Your task to perform on an android device: Go to privacy settings Image 0: 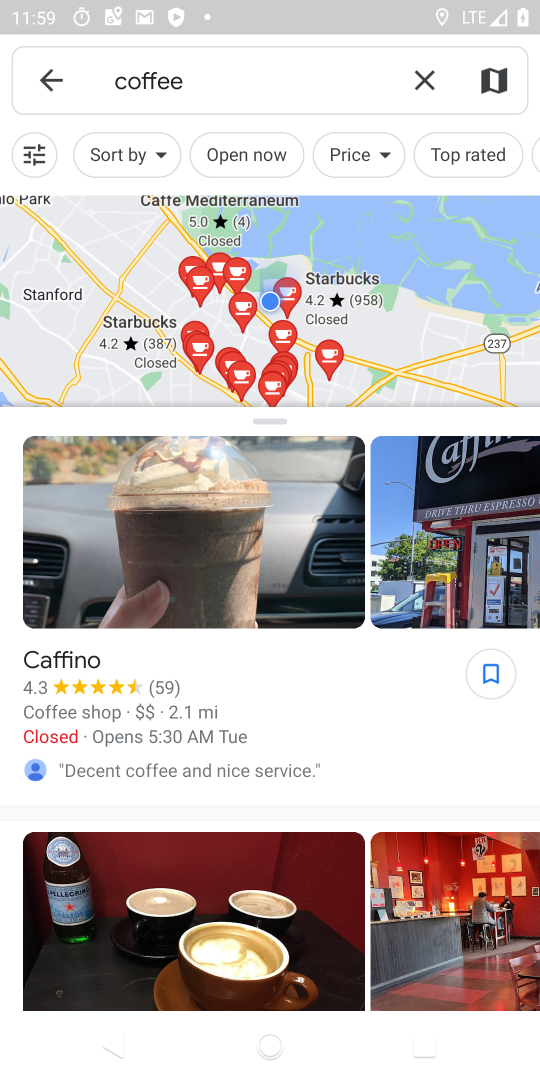
Step 0: press home button
Your task to perform on an android device: Go to privacy settings Image 1: 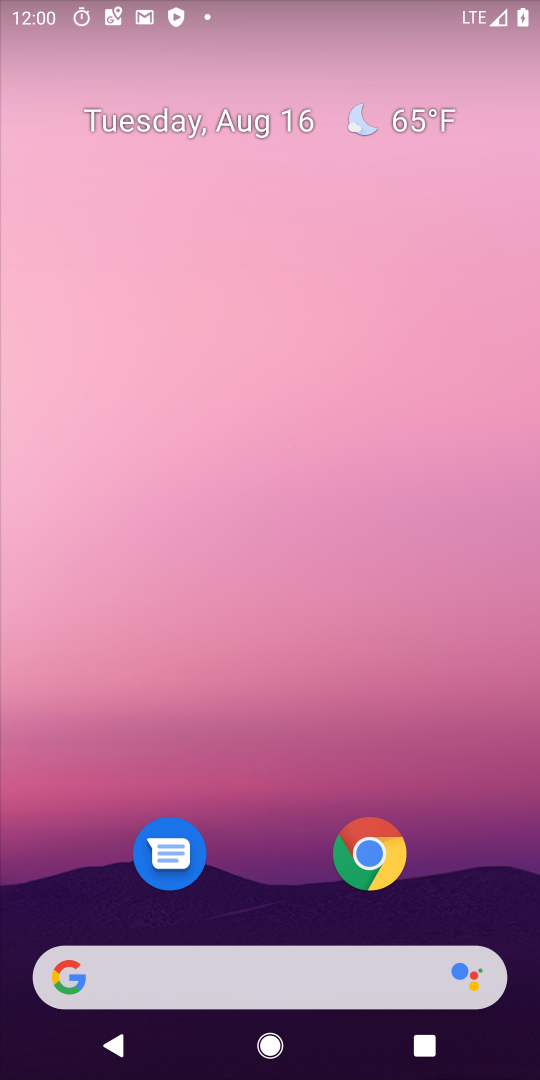
Step 1: drag from (204, 730) to (204, 322)
Your task to perform on an android device: Go to privacy settings Image 2: 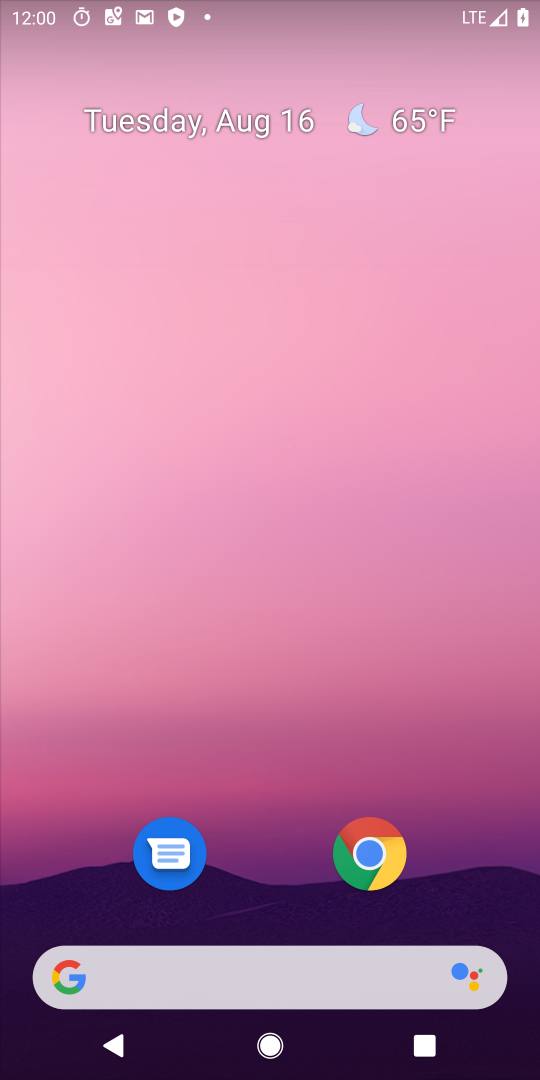
Step 2: drag from (275, 930) to (271, 168)
Your task to perform on an android device: Go to privacy settings Image 3: 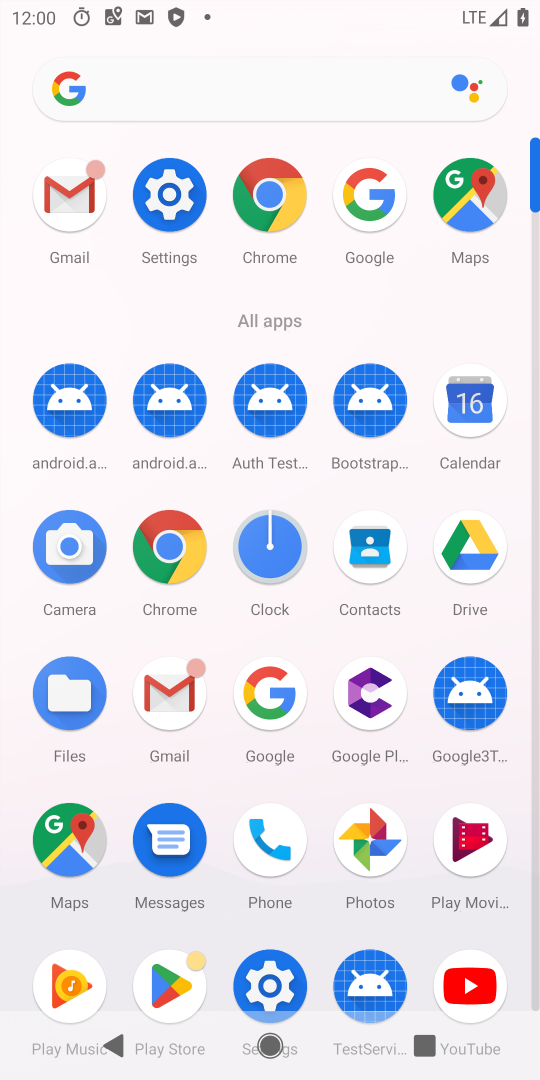
Step 3: click (176, 185)
Your task to perform on an android device: Go to privacy settings Image 4: 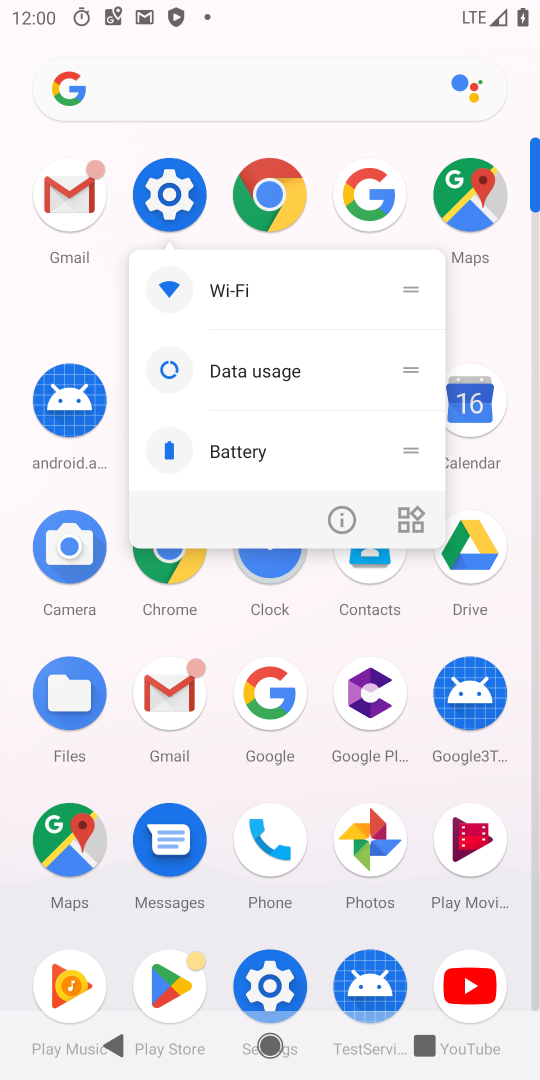
Step 4: click (158, 189)
Your task to perform on an android device: Go to privacy settings Image 5: 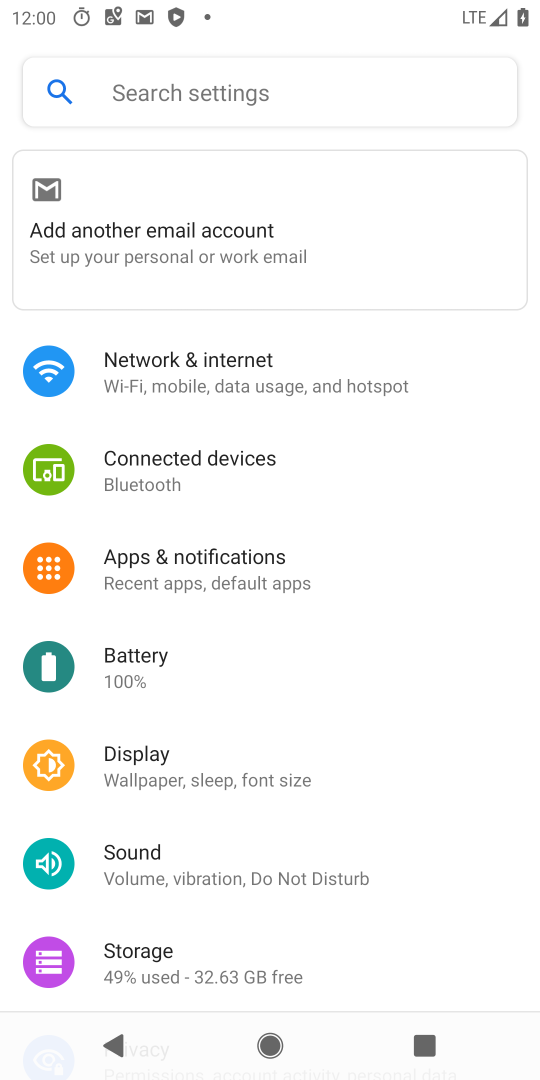
Step 5: drag from (166, 938) to (158, 412)
Your task to perform on an android device: Go to privacy settings Image 6: 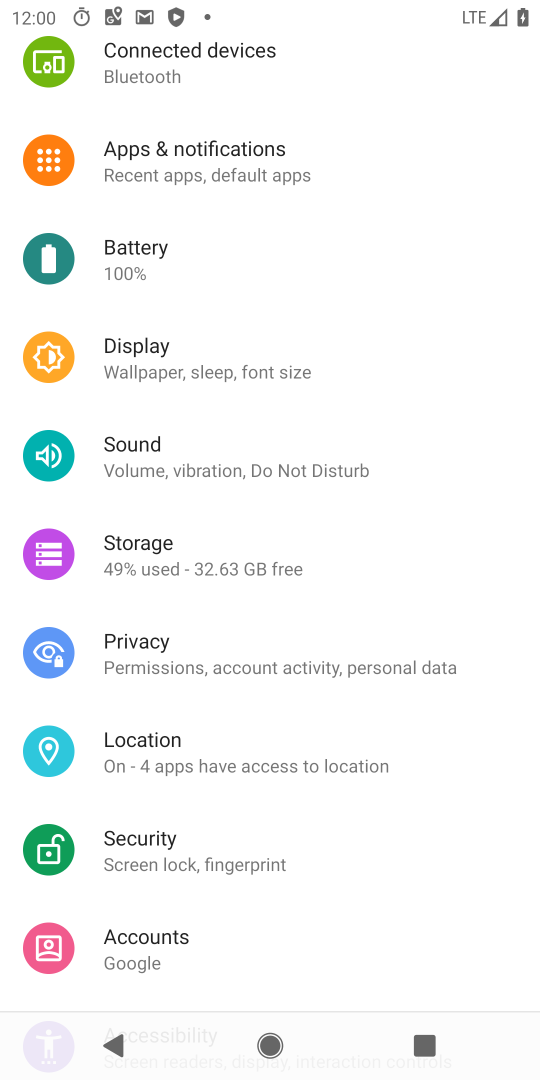
Step 6: click (146, 656)
Your task to perform on an android device: Go to privacy settings Image 7: 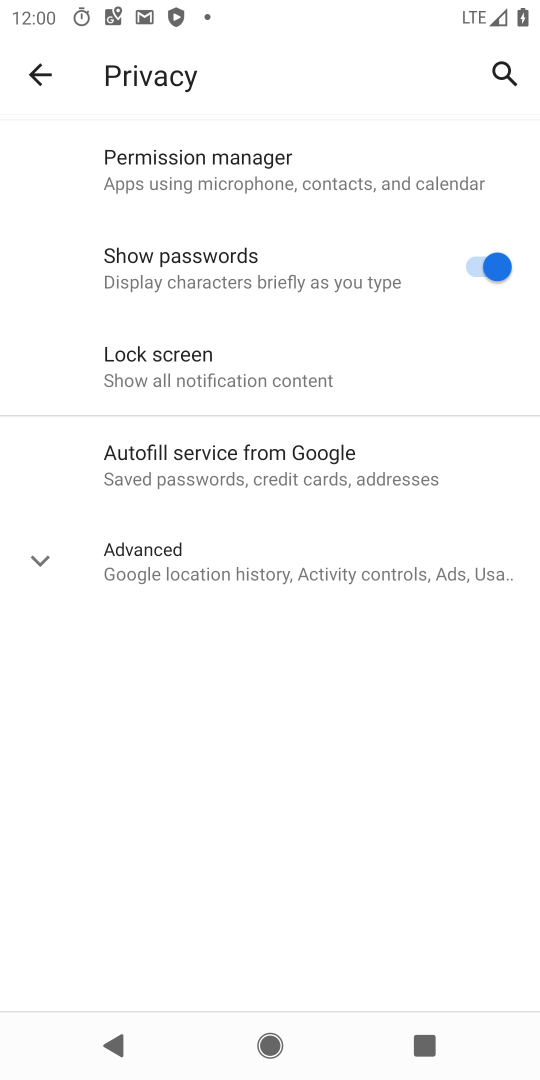
Step 7: click (228, 564)
Your task to perform on an android device: Go to privacy settings Image 8: 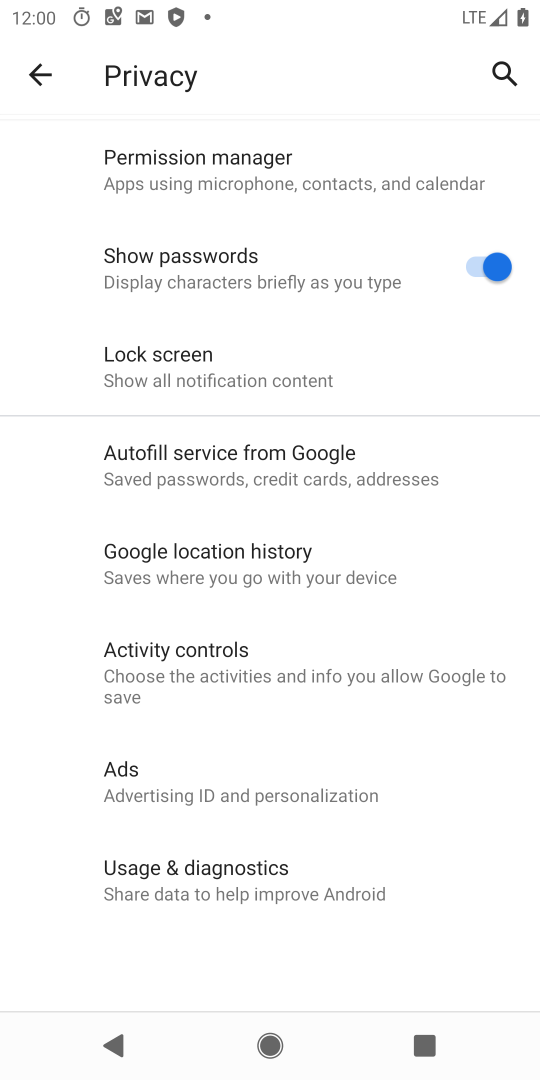
Step 8: task complete